Your task to perform on an android device: Go to CNN.com Image 0: 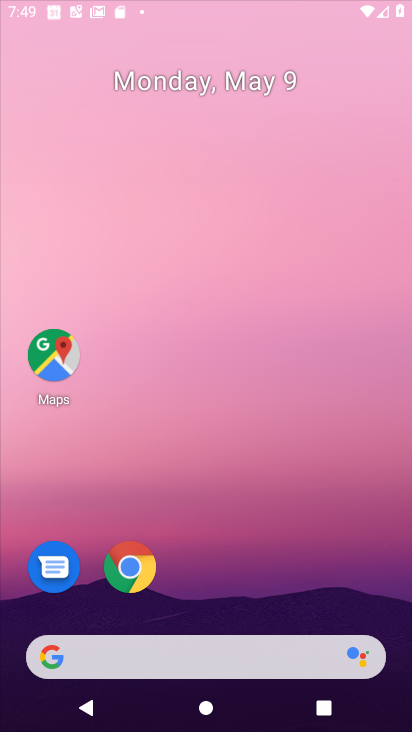
Step 0: click (341, 132)
Your task to perform on an android device: Go to CNN.com Image 1: 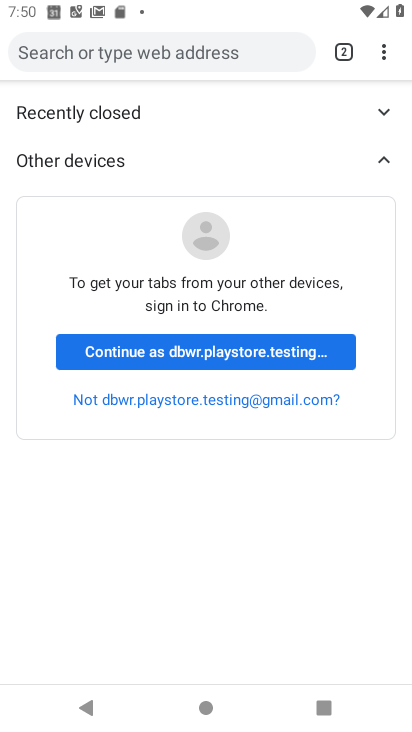
Step 1: press home button
Your task to perform on an android device: Go to CNN.com Image 2: 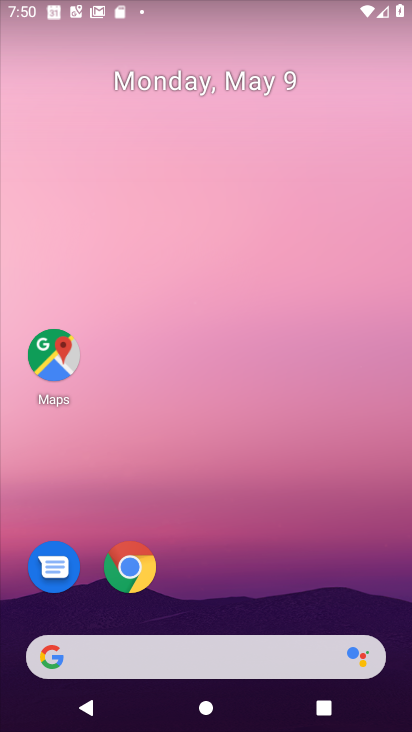
Step 2: click (124, 571)
Your task to perform on an android device: Go to CNN.com Image 3: 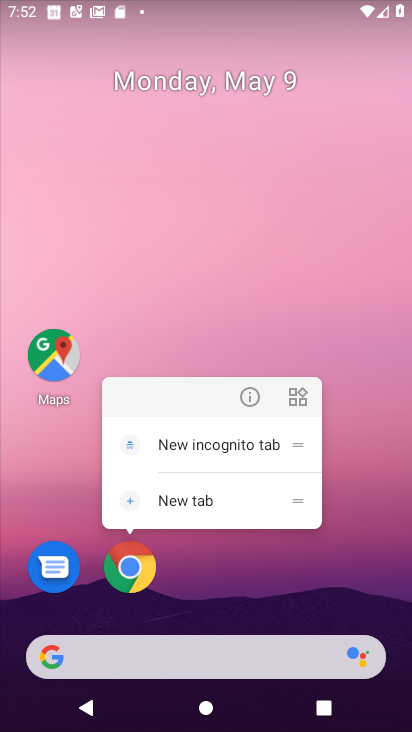
Step 3: click (258, 391)
Your task to perform on an android device: Go to CNN.com Image 4: 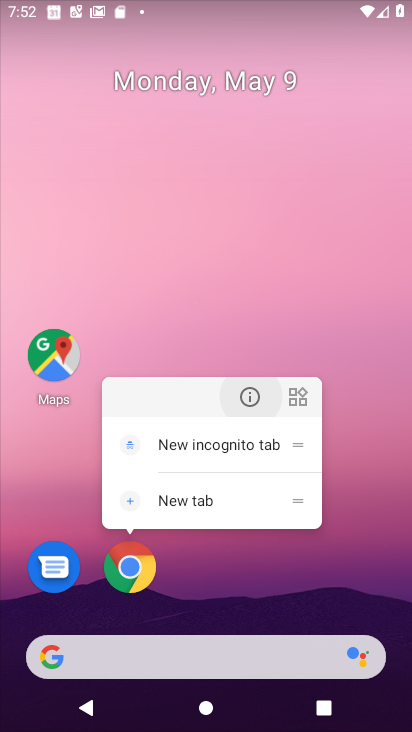
Step 4: click (250, 390)
Your task to perform on an android device: Go to CNN.com Image 5: 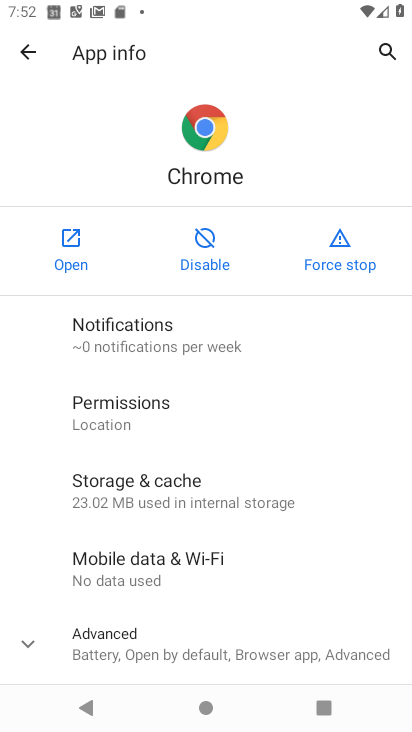
Step 5: click (83, 255)
Your task to perform on an android device: Go to CNN.com Image 6: 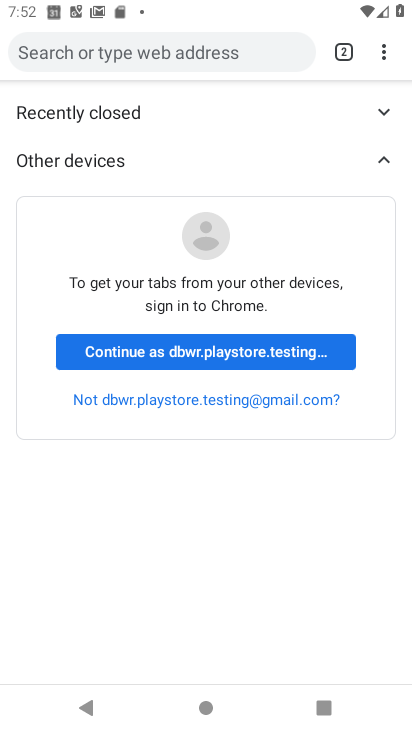
Step 6: click (114, 41)
Your task to perform on an android device: Go to CNN.com Image 7: 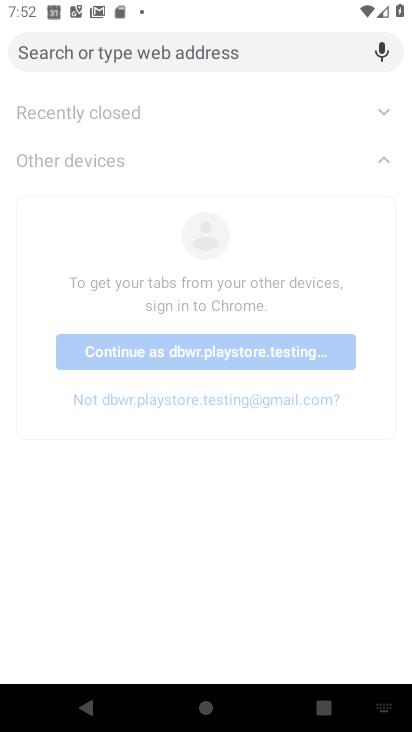
Step 7: type "cnn.com"
Your task to perform on an android device: Go to CNN.com Image 8: 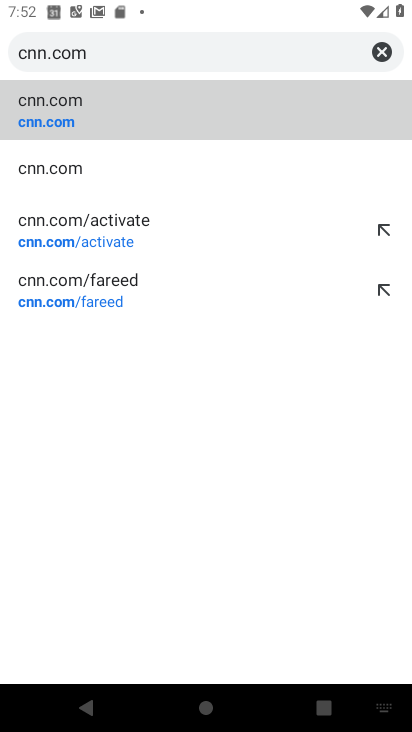
Step 8: click (87, 125)
Your task to perform on an android device: Go to CNN.com Image 9: 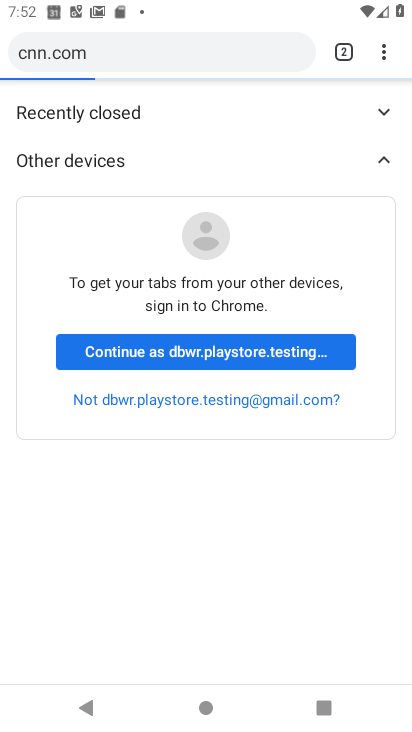
Step 9: task complete